Your task to perform on an android device: Open the map Image 0: 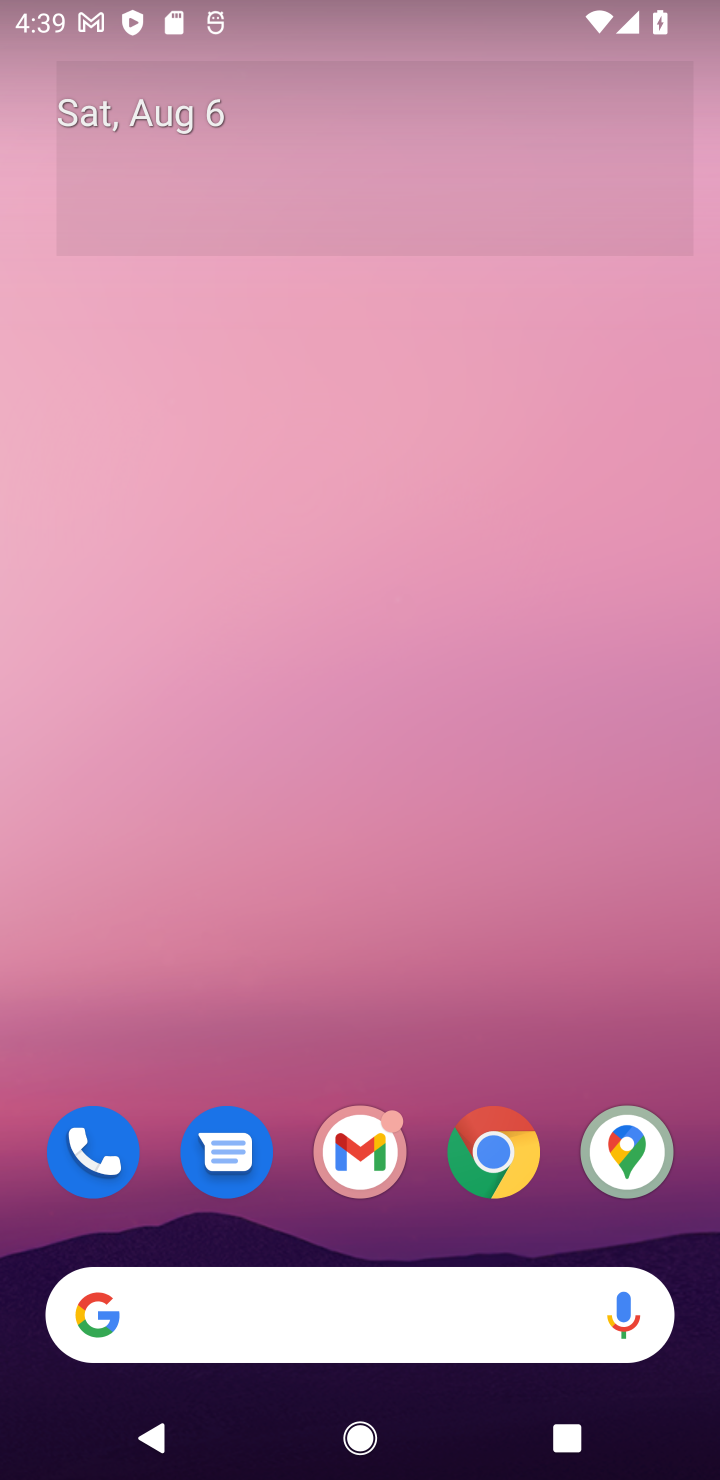
Step 0: drag from (255, 939) to (421, 154)
Your task to perform on an android device: Open the map Image 1: 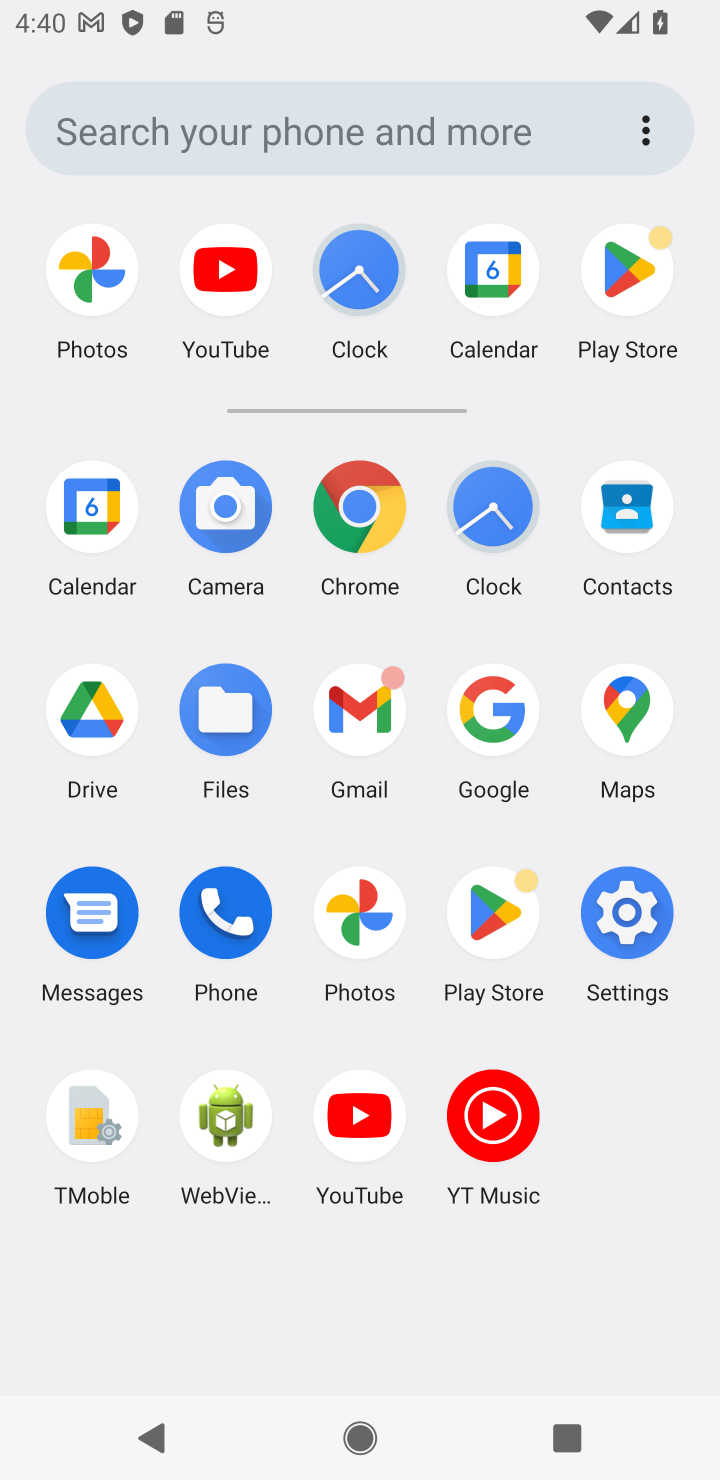
Step 1: click (623, 708)
Your task to perform on an android device: Open the map Image 2: 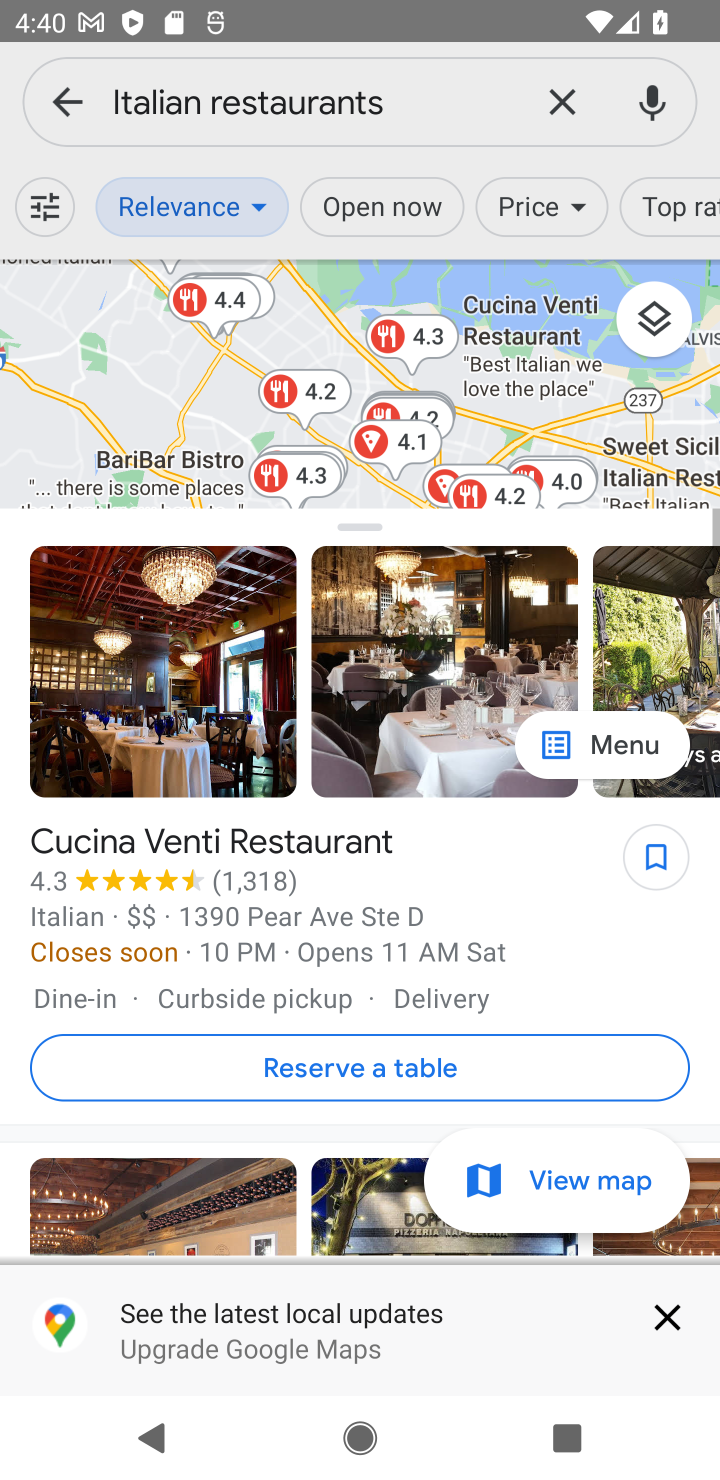
Step 2: task complete